Your task to perform on an android device: change the clock display to show seconds Image 0: 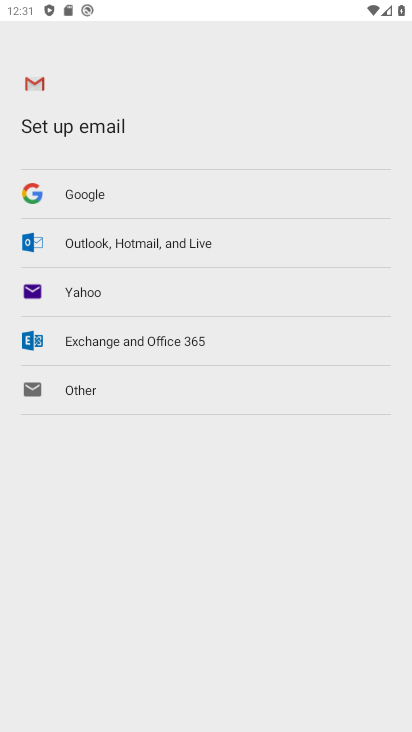
Step 0: drag from (23, 688) to (257, 148)
Your task to perform on an android device: change the clock display to show seconds Image 1: 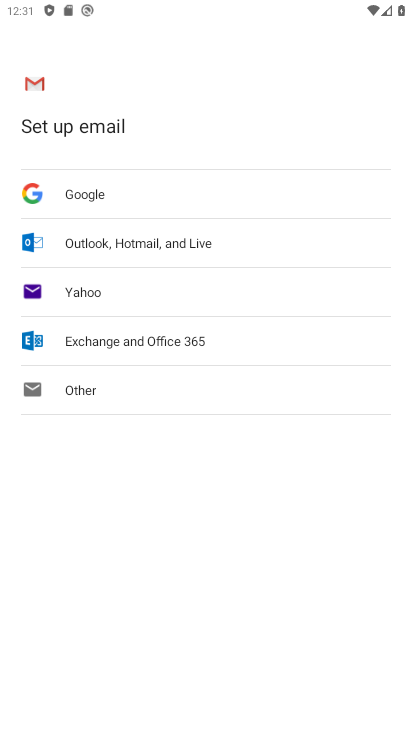
Step 1: press home button
Your task to perform on an android device: change the clock display to show seconds Image 2: 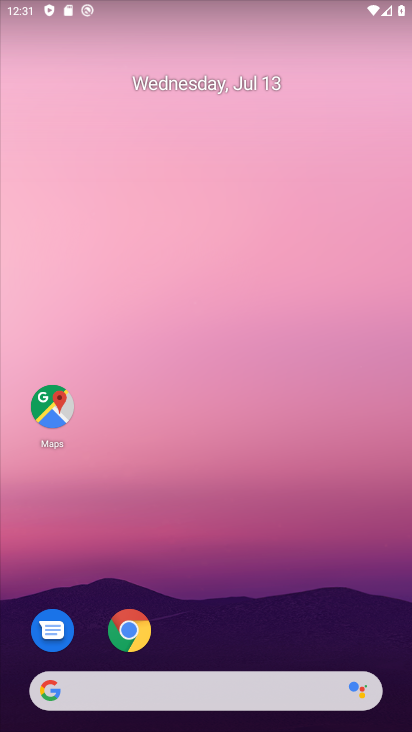
Step 2: drag from (26, 698) to (214, 112)
Your task to perform on an android device: change the clock display to show seconds Image 3: 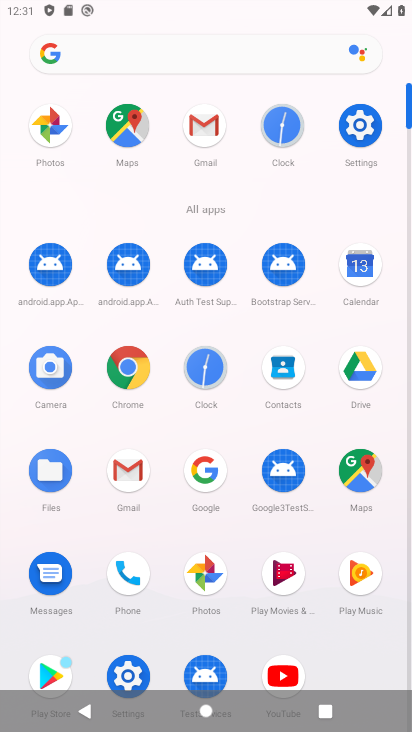
Step 3: click (205, 378)
Your task to perform on an android device: change the clock display to show seconds Image 4: 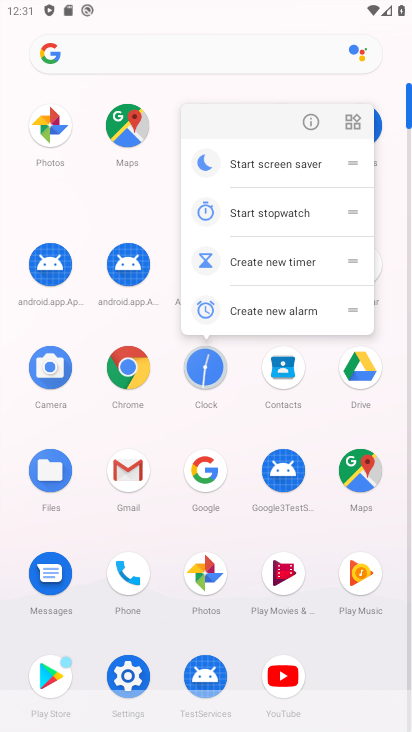
Step 4: click (208, 386)
Your task to perform on an android device: change the clock display to show seconds Image 5: 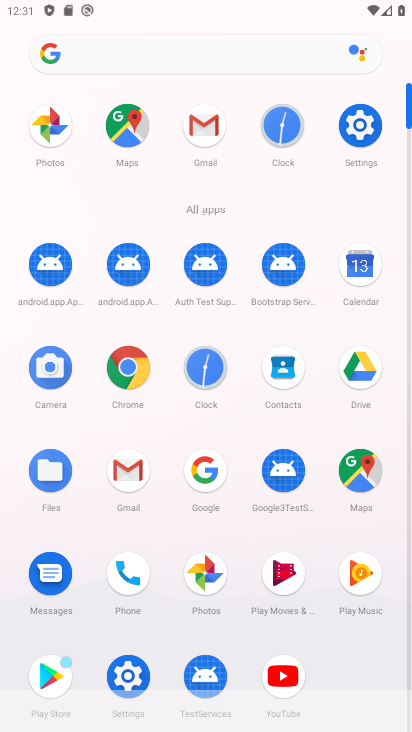
Step 5: click (200, 369)
Your task to perform on an android device: change the clock display to show seconds Image 6: 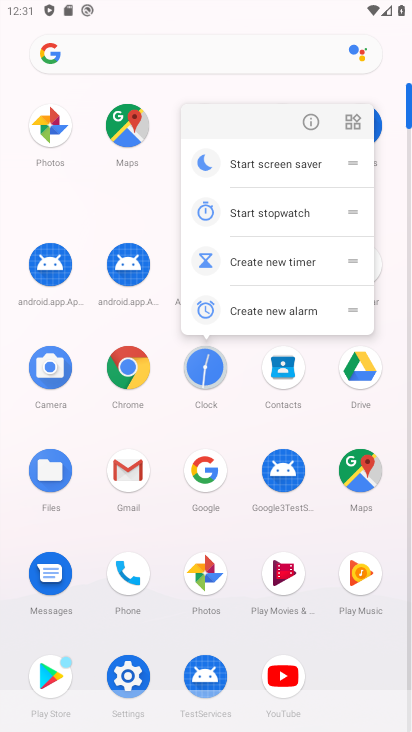
Step 6: click (200, 383)
Your task to perform on an android device: change the clock display to show seconds Image 7: 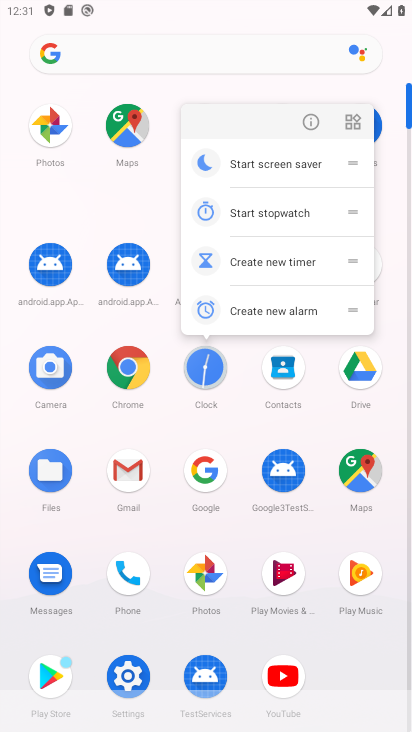
Step 7: click (200, 370)
Your task to perform on an android device: change the clock display to show seconds Image 8: 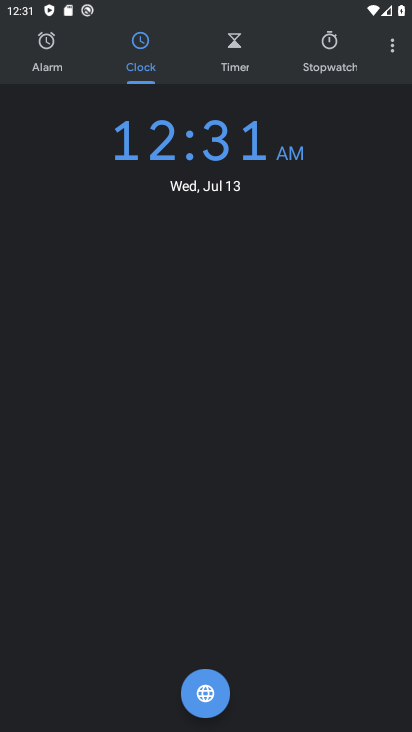
Step 8: click (386, 45)
Your task to perform on an android device: change the clock display to show seconds Image 9: 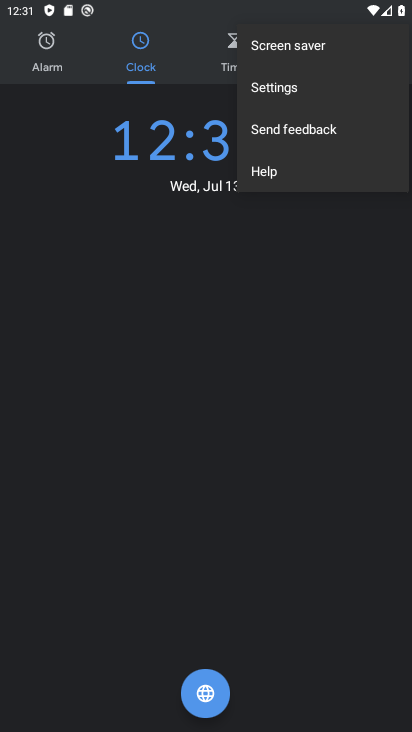
Step 9: click (293, 90)
Your task to perform on an android device: change the clock display to show seconds Image 10: 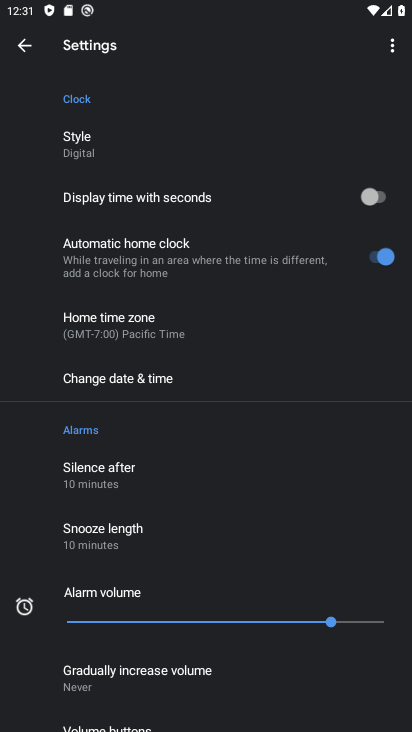
Step 10: click (143, 377)
Your task to perform on an android device: change the clock display to show seconds Image 11: 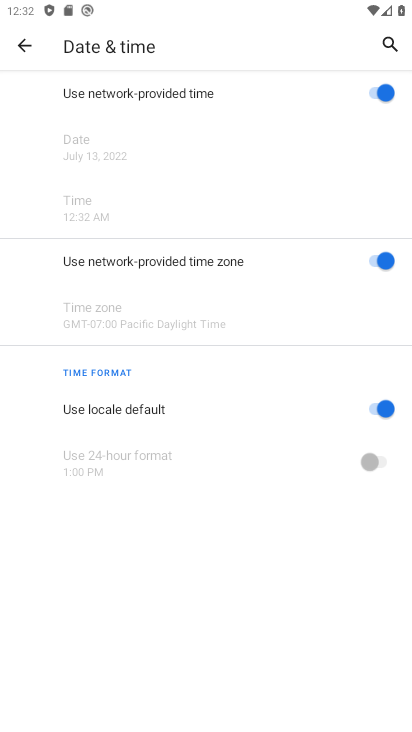
Step 11: click (377, 407)
Your task to perform on an android device: change the clock display to show seconds Image 12: 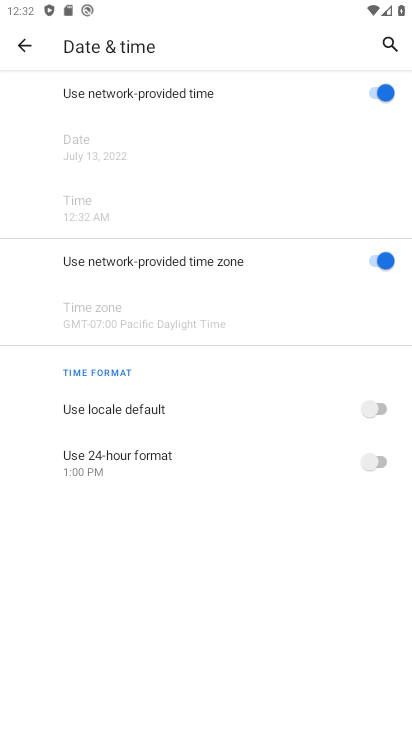
Step 12: task complete